Your task to perform on an android device: Is it going to rain today? Image 0: 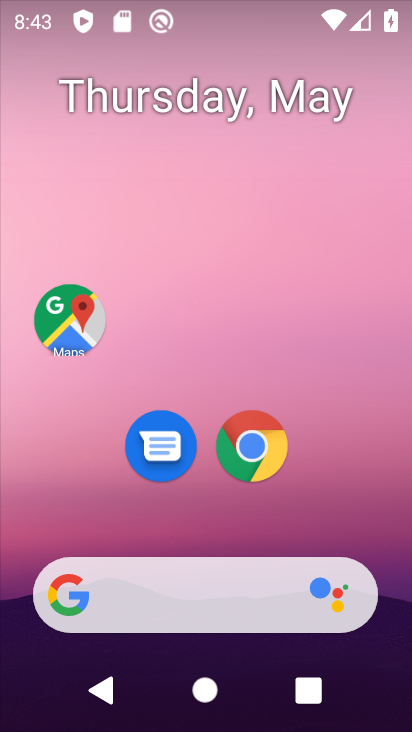
Step 0: drag from (14, 131) to (406, 297)
Your task to perform on an android device: Is it going to rain today? Image 1: 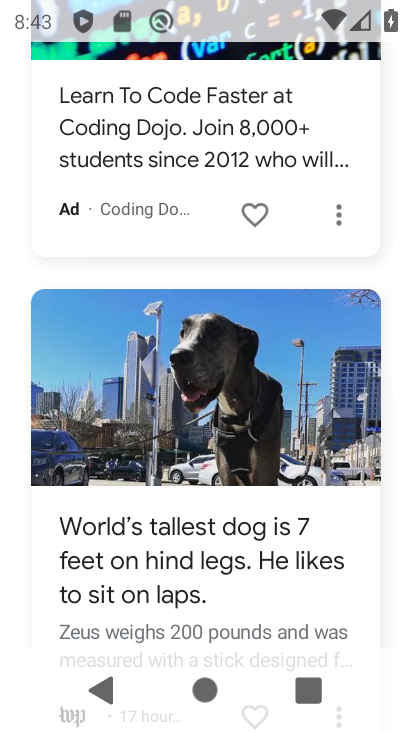
Step 1: drag from (295, 89) to (318, 639)
Your task to perform on an android device: Is it going to rain today? Image 2: 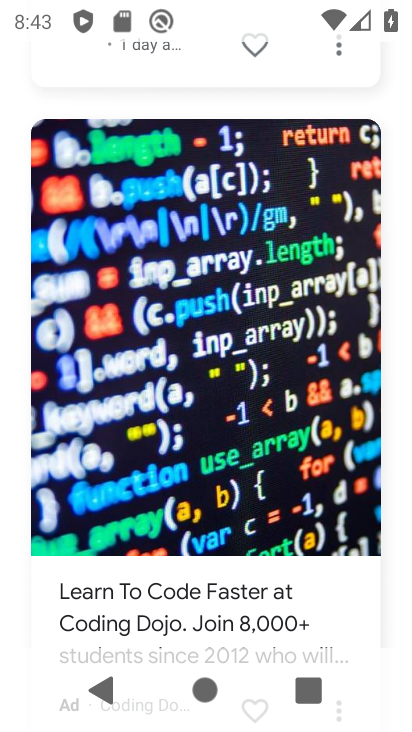
Step 2: drag from (342, 93) to (342, 620)
Your task to perform on an android device: Is it going to rain today? Image 3: 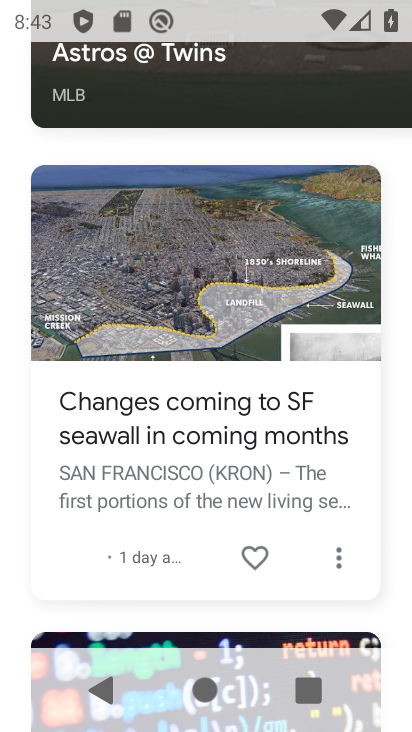
Step 3: drag from (299, 162) to (285, 647)
Your task to perform on an android device: Is it going to rain today? Image 4: 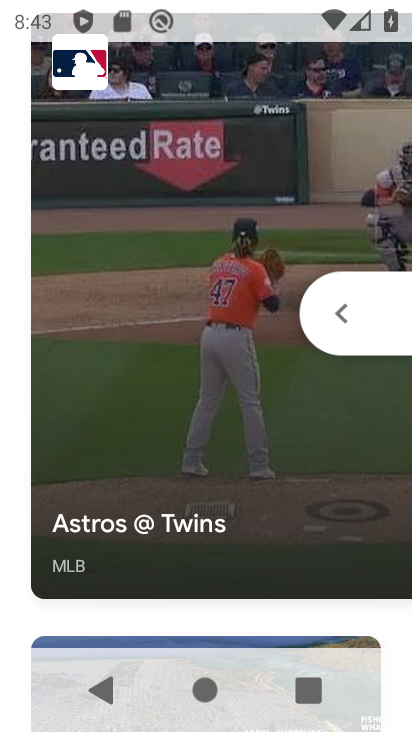
Step 4: drag from (276, 106) to (296, 697)
Your task to perform on an android device: Is it going to rain today? Image 5: 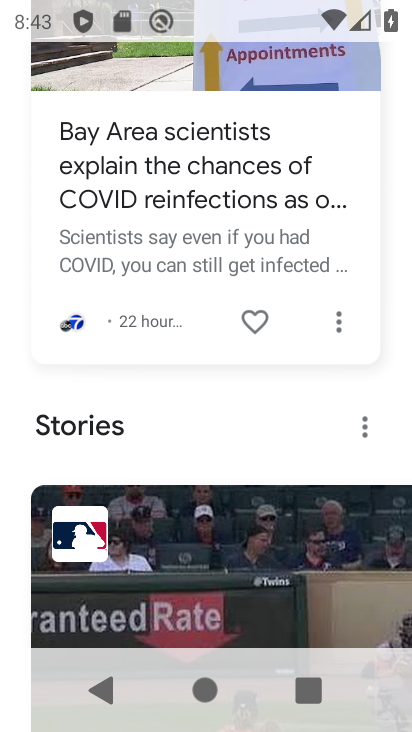
Step 5: drag from (270, 180) to (263, 573)
Your task to perform on an android device: Is it going to rain today? Image 6: 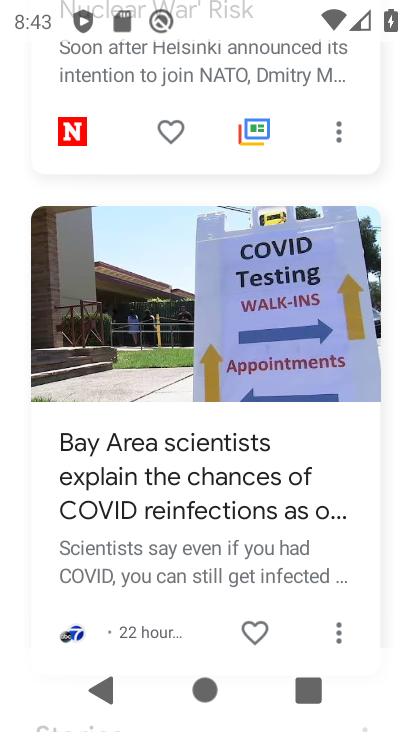
Step 6: drag from (251, 98) to (257, 433)
Your task to perform on an android device: Is it going to rain today? Image 7: 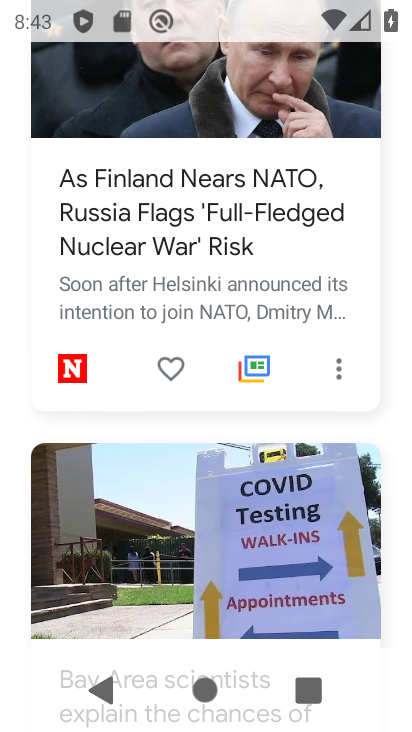
Step 7: drag from (275, 80) to (294, 566)
Your task to perform on an android device: Is it going to rain today? Image 8: 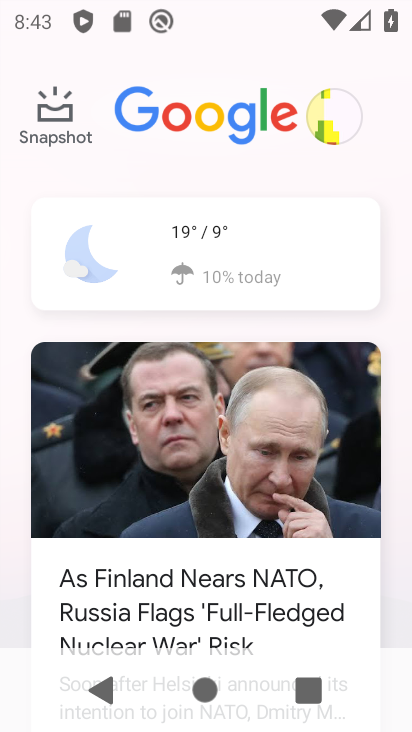
Step 8: click (176, 246)
Your task to perform on an android device: Is it going to rain today? Image 9: 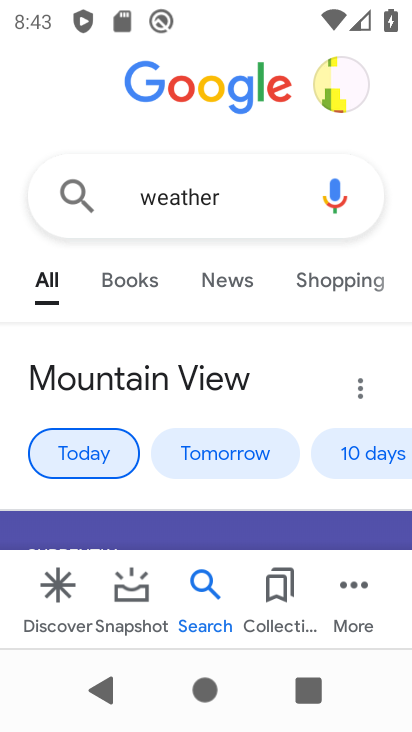
Step 9: task complete